Your task to perform on an android device: When is my next appointment? Image 0: 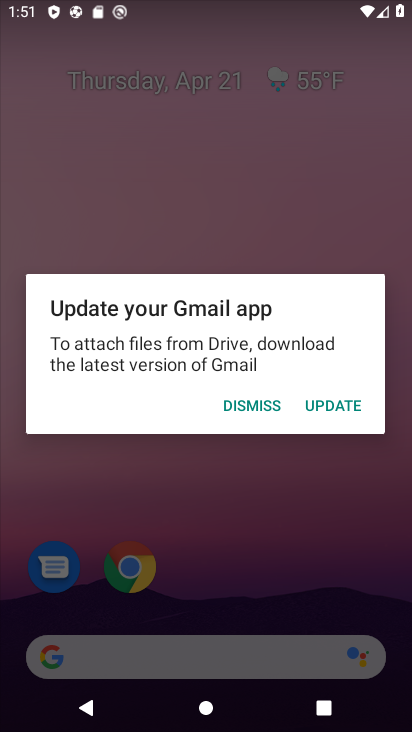
Step 0: press home button
Your task to perform on an android device: When is my next appointment? Image 1: 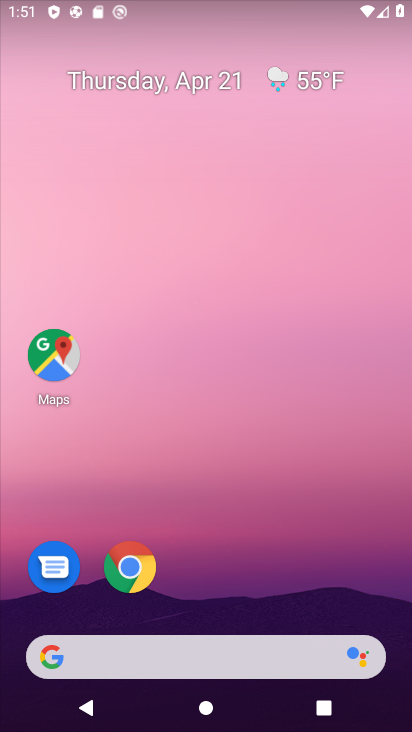
Step 1: drag from (192, 649) to (353, 131)
Your task to perform on an android device: When is my next appointment? Image 2: 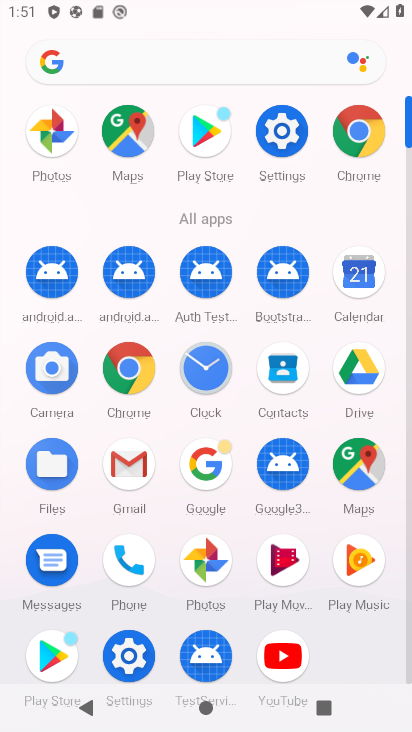
Step 2: click (367, 286)
Your task to perform on an android device: When is my next appointment? Image 3: 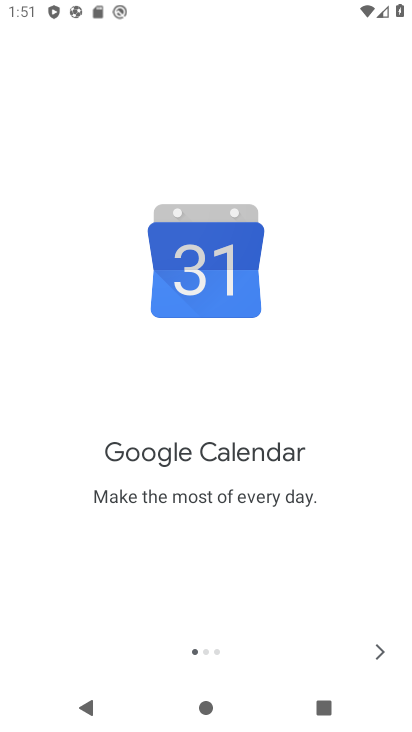
Step 3: click (376, 643)
Your task to perform on an android device: When is my next appointment? Image 4: 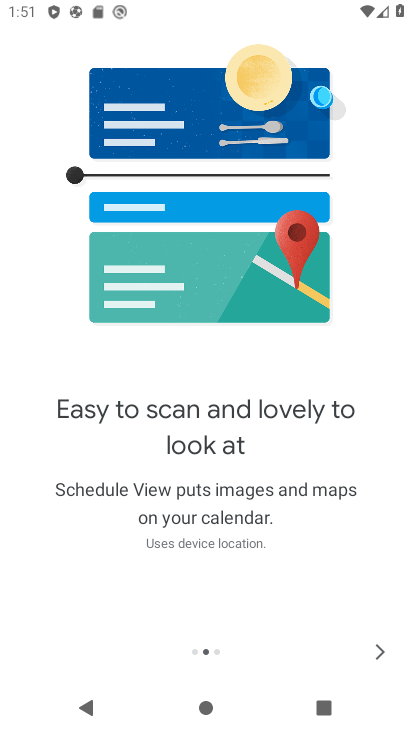
Step 4: click (379, 652)
Your task to perform on an android device: When is my next appointment? Image 5: 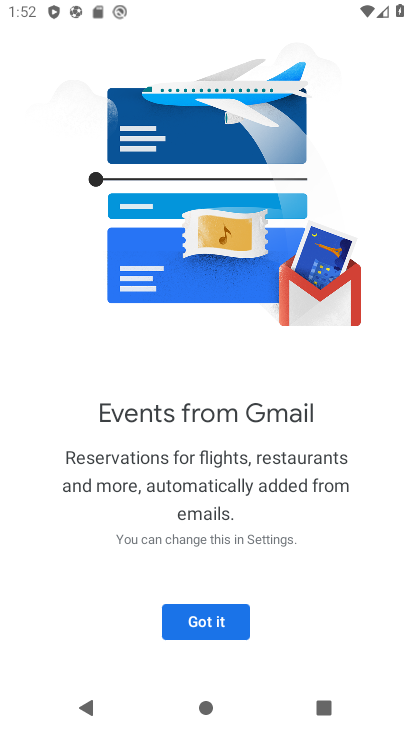
Step 5: click (224, 631)
Your task to perform on an android device: When is my next appointment? Image 6: 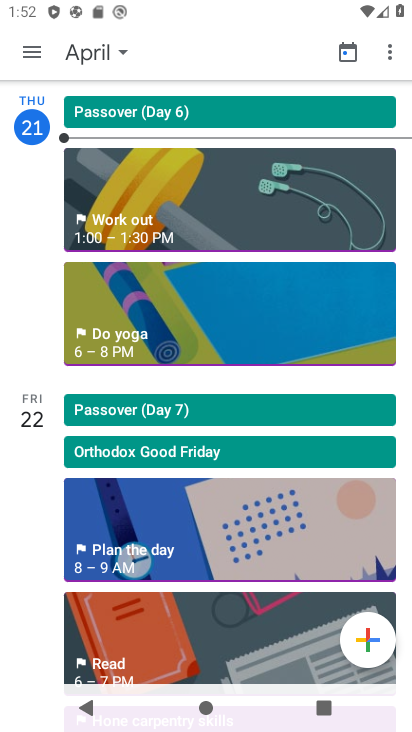
Step 6: click (84, 50)
Your task to perform on an android device: When is my next appointment? Image 7: 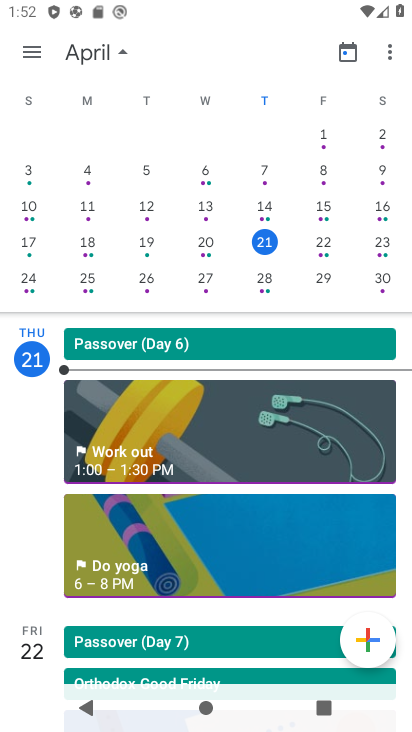
Step 7: click (37, 54)
Your task to perform on an android device: When is my next appointment? Image 8: 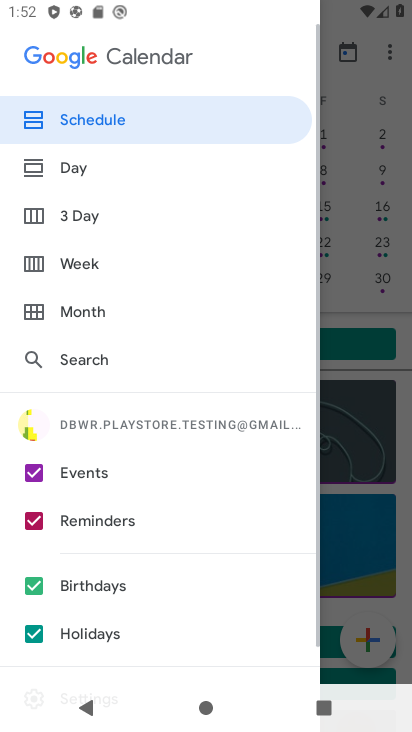
Step 8: click (101, 114)
Your task to perform on an android device: When is my next appointment? Image 9: 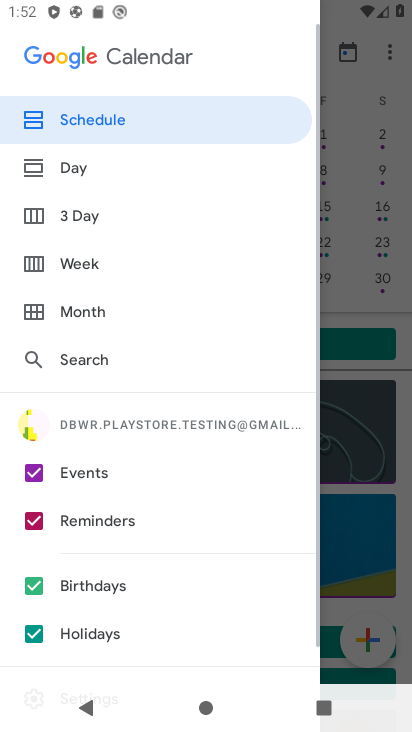
Step 9: click (91, 117)
Your task to perform on an android device: When is my next appointment? Image 10: 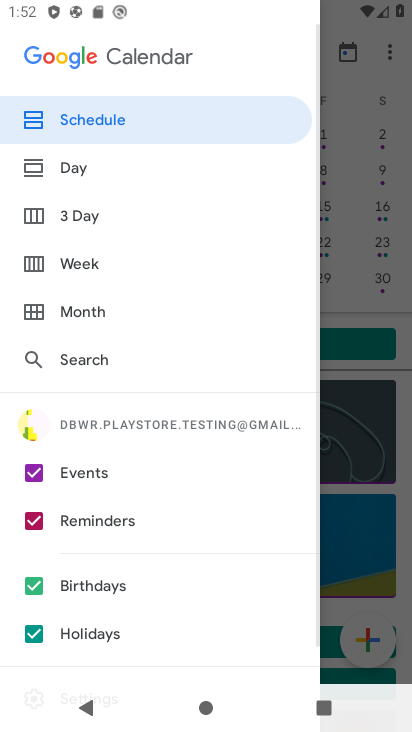
Step 10: click (107, 126)
Your task to perform on an android device: When is my next appointment? Image 11: 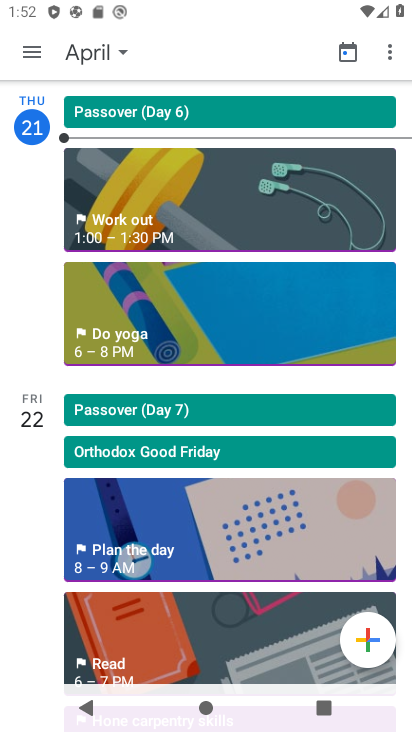
Step 11: task complete